Your task to perform on an android device: Open battery settings Image 0: 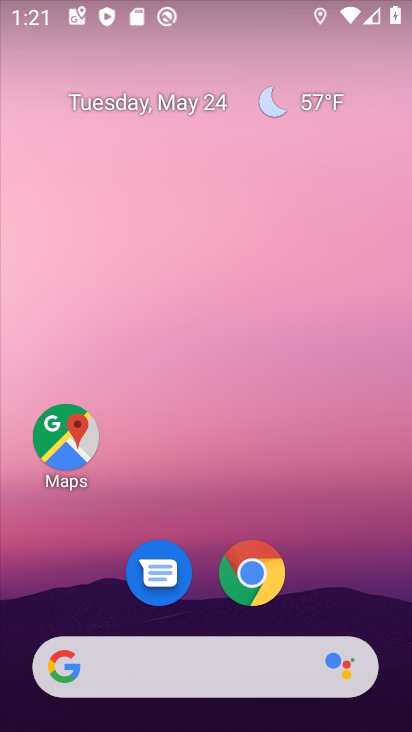
Step 0: drag from (411, 597) to (326, 97)
Your task to perform on an android device: Open battery settings Image 1: 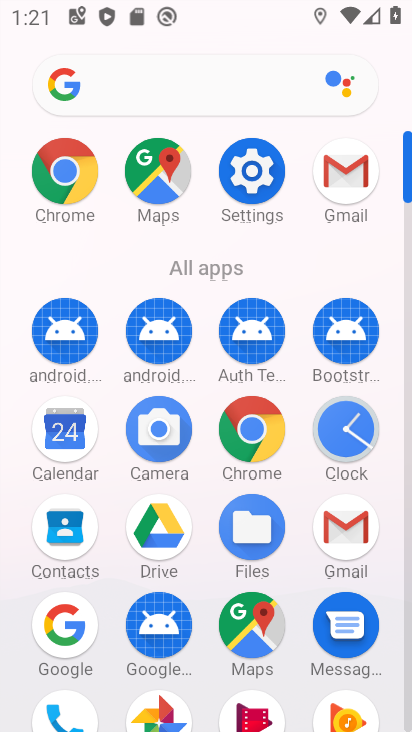
Step 1: click (268, 188)
Your task to perform on an android device: Open battery settings Image 2: 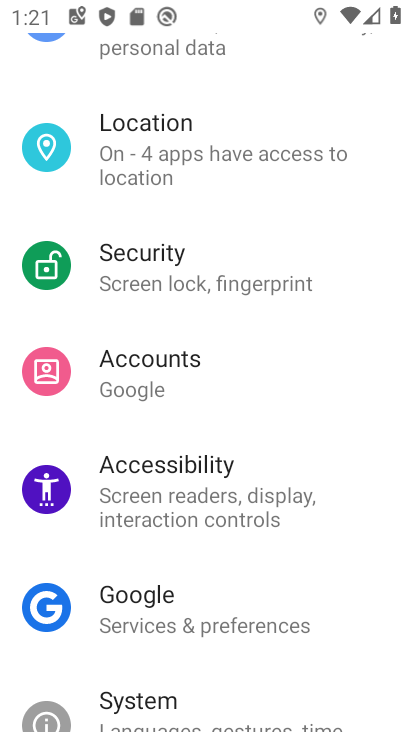
Step 2: drag from (185, 152) to (163, 614)
Your task to perform on an android device: Open battery settings Image 3: 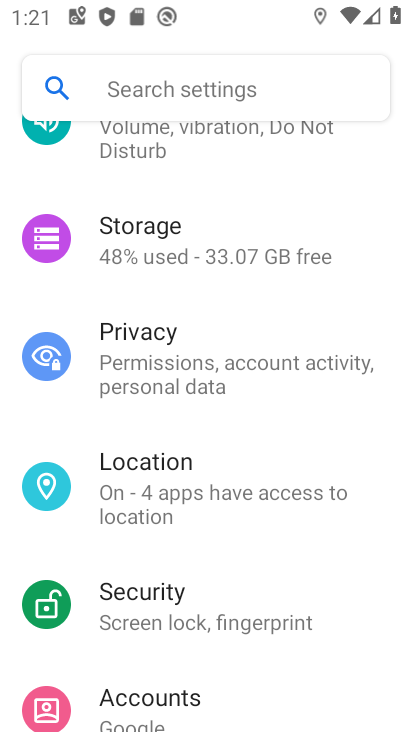
Step 3: drag from (190, 255) to (167, 588)
Your task to perform on an android device: Open battery settings Image 4: 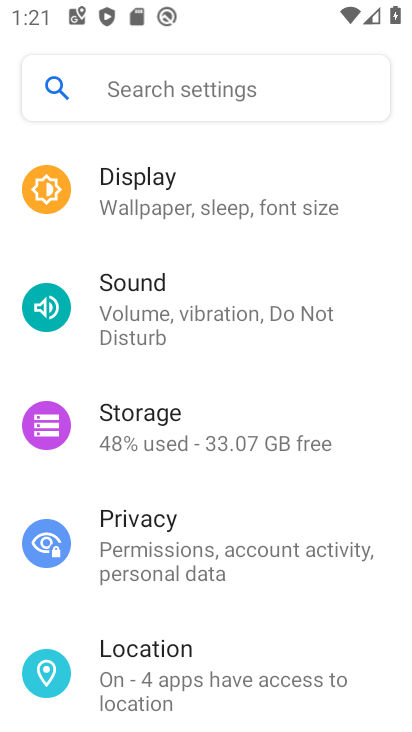
Step 4: drag from (183, 240) to (179, 564)
Your task to perform on an android device: Open battery settings Image 5: 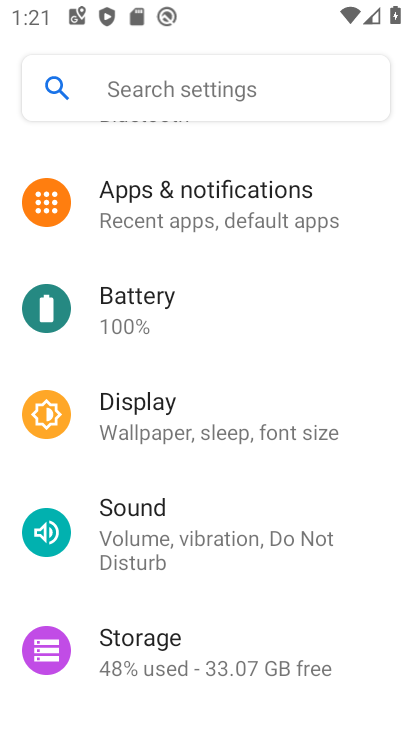
Step 5: click (172, 299)
Your task to perform on an android device: Open battery settings Image 6: 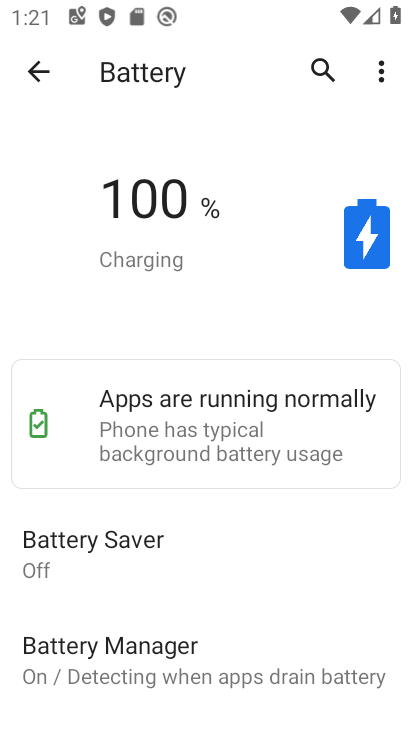
Step 6: task complete